Your task to perform on an android device: remove spam from my inbox in the gmail app Image 0: 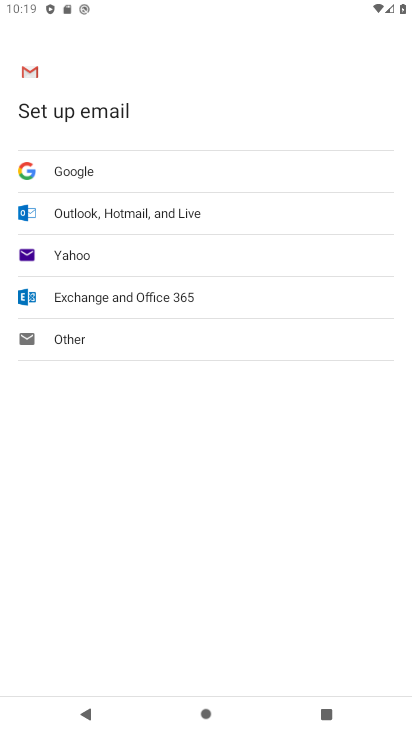
Step 0: press back button
Your task to perform on an android device: remove spam from my inbox in the gmail app Image 1: 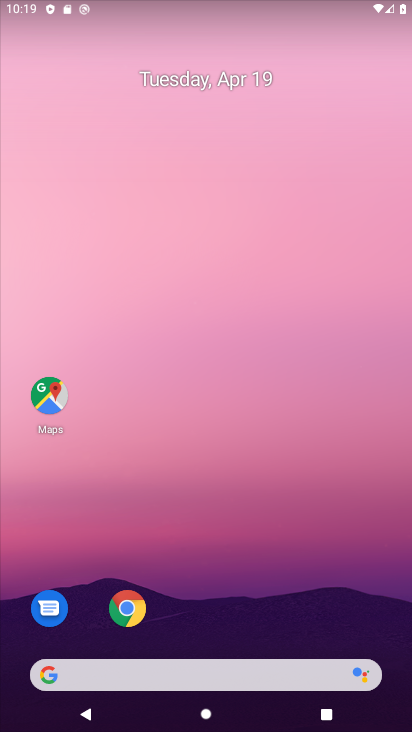
Step 1: click (244, 122)
Your task to perform on an android device: remove spam from my inbox in the gmail app Image 2: 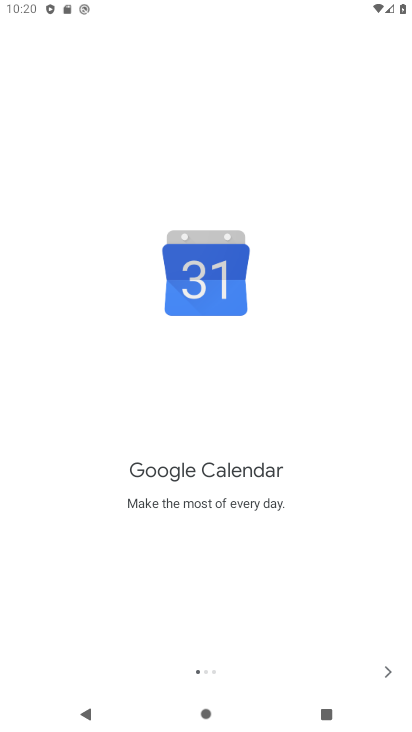
Step 2: press back button
Your task to perform on an android device: remove spam from my inbox in the gmail app Image 3: 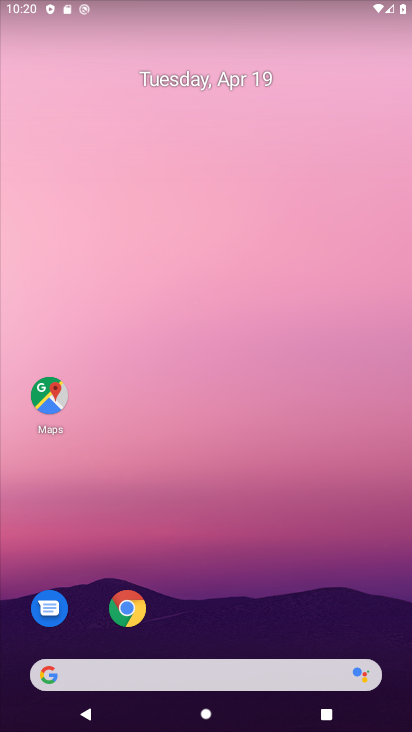
Step 3: drag from (259, 573) to (268, 2)
Your task to perform on an android device: remove spam from my inbox in the gmail app Image 4: 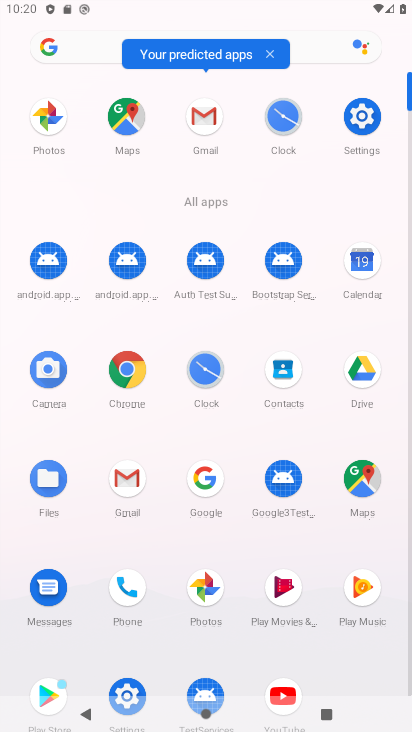
Step 4: click (203, 120)
Your task to perform on an android device: remove spam from my inbox in the gmail app Image 5: 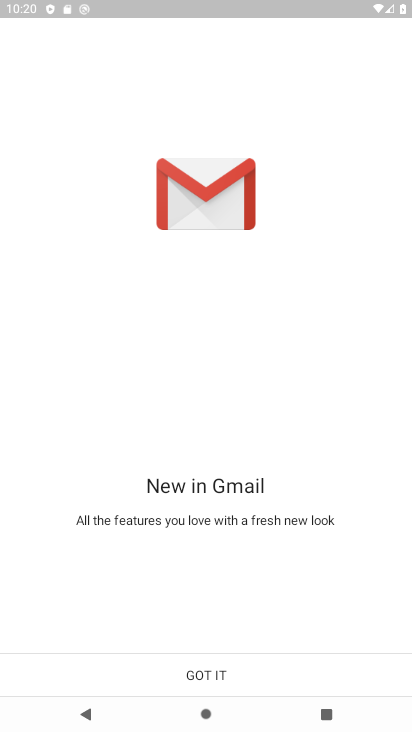
Step 5: click (211, 685)
Your task to perform on an android device: remove spam from my inbox in the gmail app Image 6: 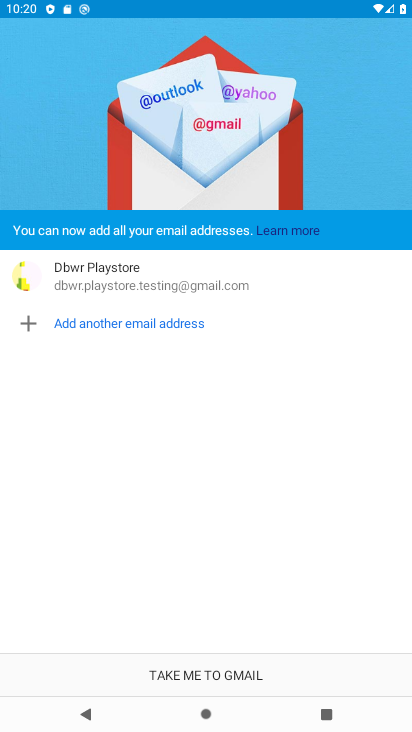
Step 6: click (211, 685)
Your task to perform on an android device: remove spam from my inbox in the gmail app Image 7: 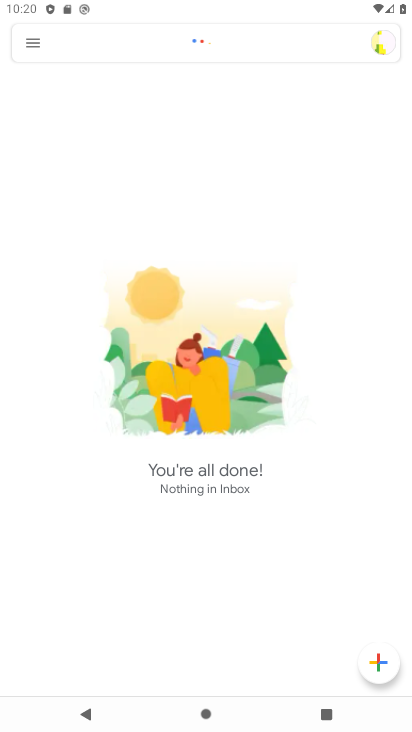
Step 7: click (33, 42)
Your task to perform on an android device: remove spam from my inbox in the gmail app Image 8: 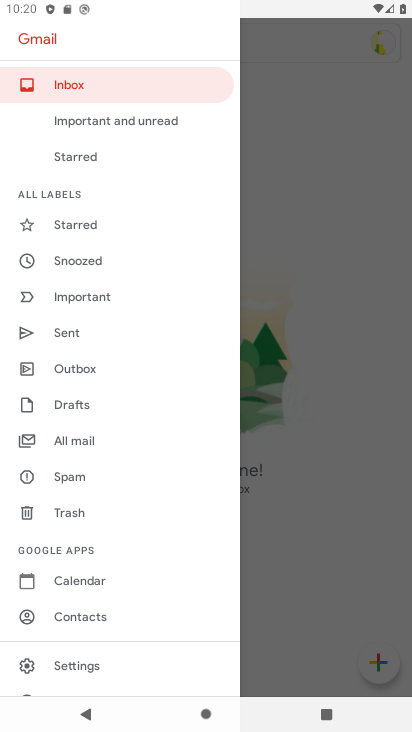
Step 8: click (127, 474)
Your task to perform on an android device: remove spam from my inbox in the gmail app Image 9: 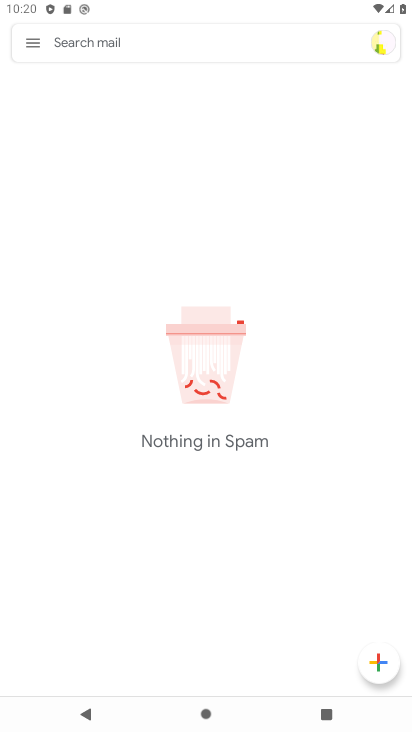
Step 9: task complete